Your task to perform on an android device: turn on wifi Image 0: 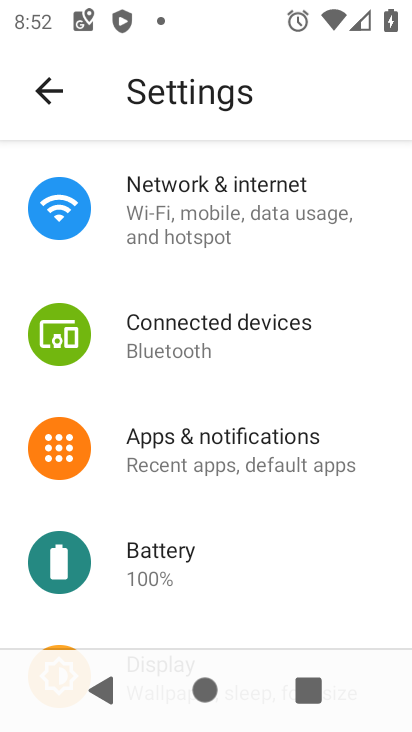
Step 0: click (217, 221)
Your task to perform on an android device: turn on wifi Image 1: 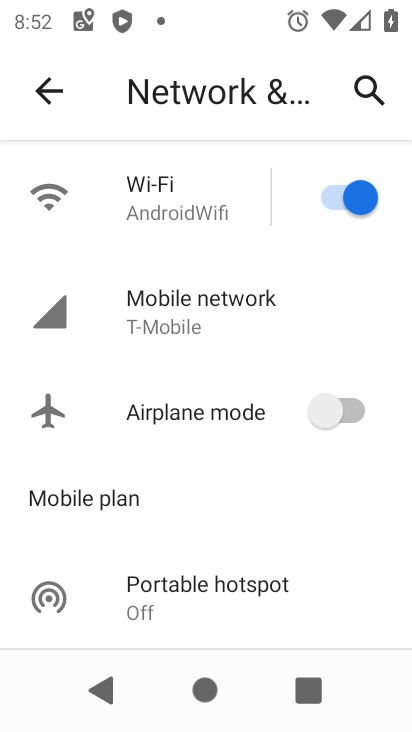
Step 1: task complete